Your task to perform on an android device: search for starred emails in the gmail app Image 0: 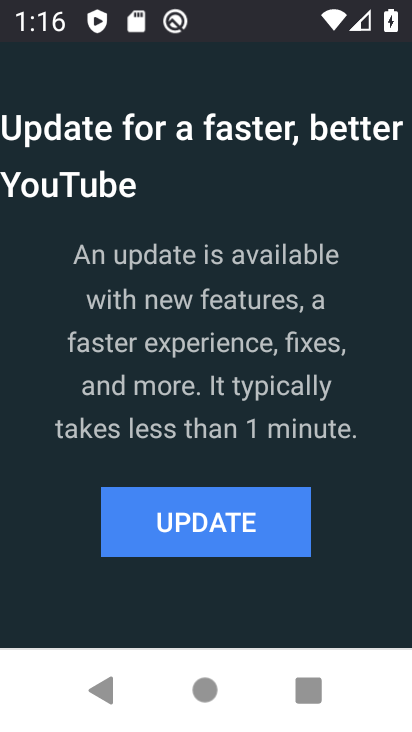
Step 0: press back button
Your task to perform on an android device: search for starred emails in the gmail app Image 1: 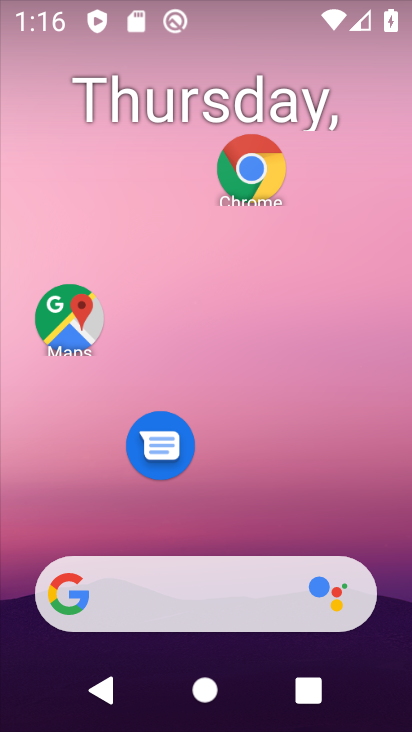
Step 1: drag from (273, 638) to (398, 198)
Your task to perform on an android device: search for starred emails in the gmail app Image 2: 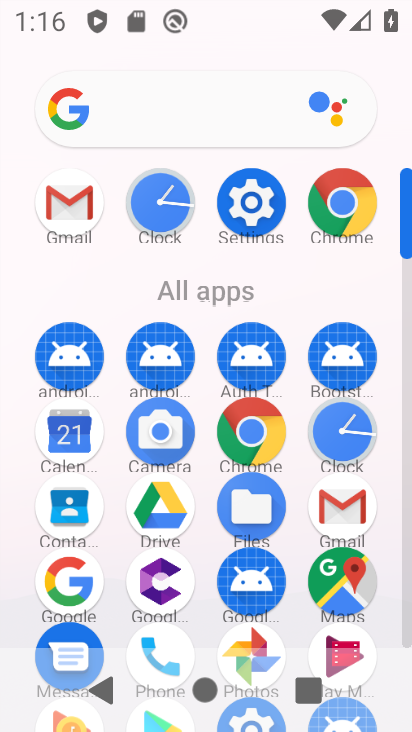
Step 2: click (343, 520)
Your task to perform on an android device: search for starred emails in the gmail app Image 3: 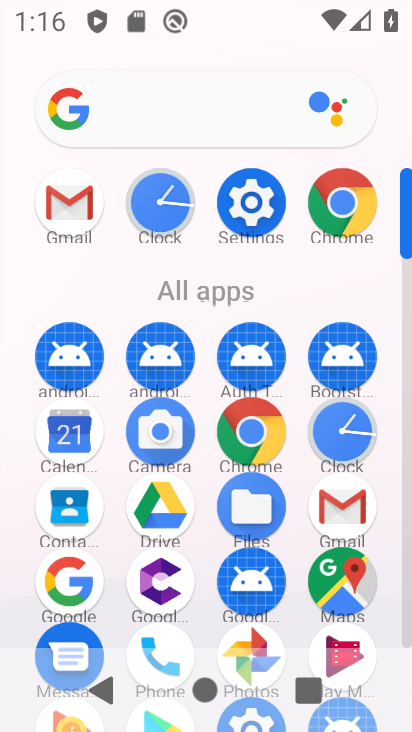
Step 3: click (343, 520)
Your task to perform on an android device: search for starred emails in the gmail app Image 4: 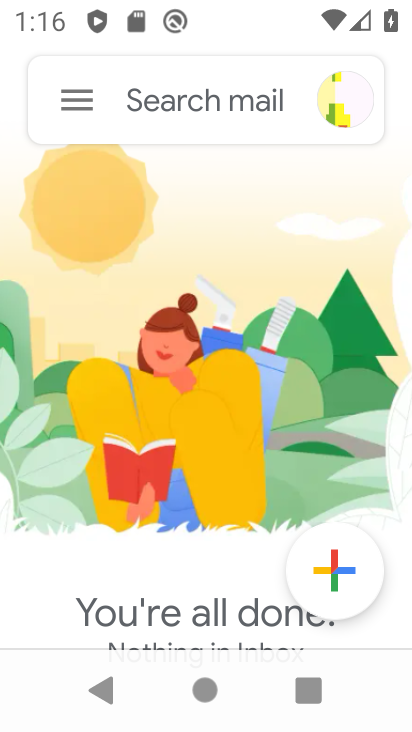
Step 4: click (100, 98)
Your task to perform on an android device: search for starred emails in the gmail app Image 5: 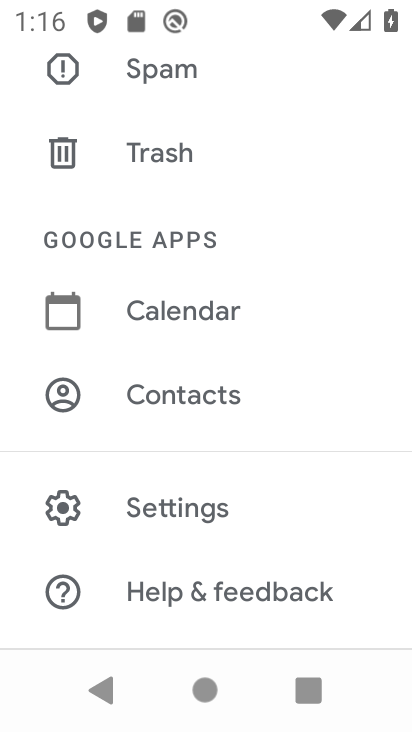
Step 5: drag from (142, 151) to (206, 431)
Your task to perform on an android device: search for starred emails in the gmail app Image 6: 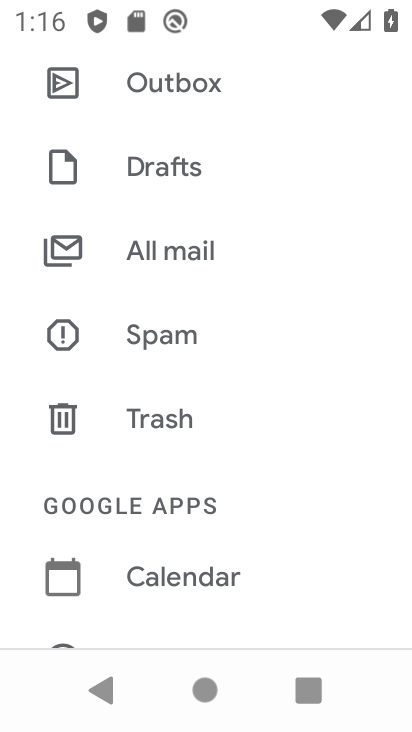
Step 6: drag from (164, 166) to (216, 440)
Your task to perform on an android device: search for starred emails in the gmail app Image 7: 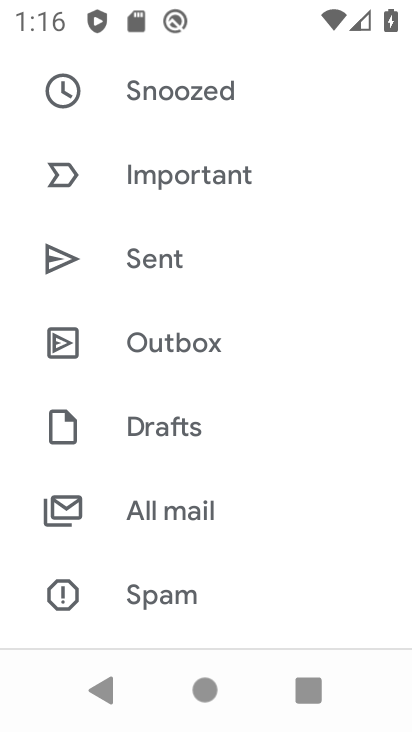
Step 7: drag from (200, 146) to (212, 287)
Your task to perform on an android device: search for starred emails in the gmail app Image 8: 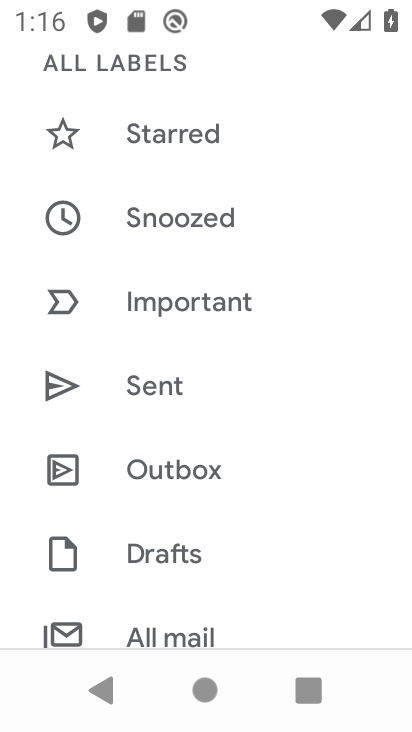
Step 8: click (178, 151)
Your task to perform on an android device: search for starred emails in the gmail app Image 9: 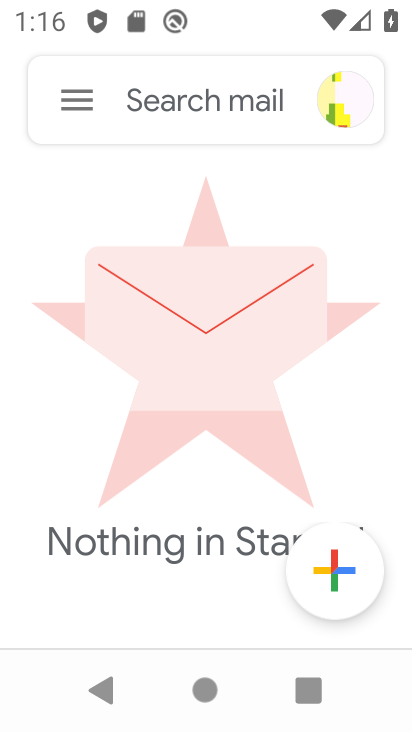
Step 9: task complete